Your task to perform on an android device: Open the stopwatch Image 0: 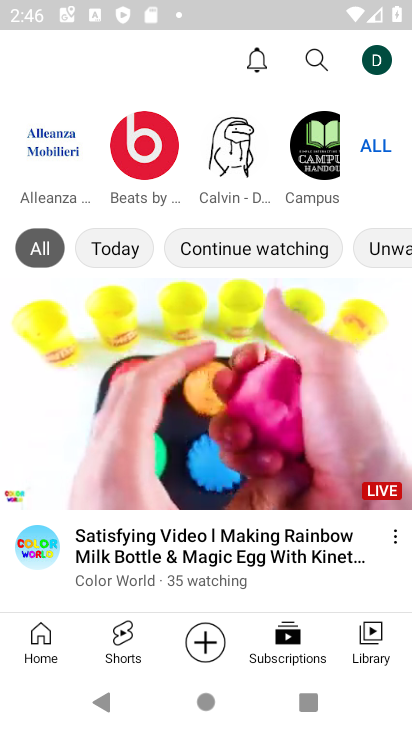
Step 0: press home button
Your task to perform on an android device: Open the stopwatch Image 1: 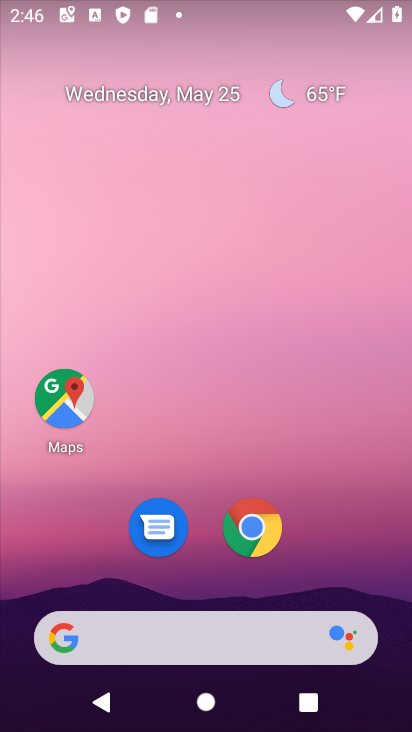
Step 1: drag from (290, 560) to (349, 30)
Your task to perform on an android device: Open the stopwatch Image 2: 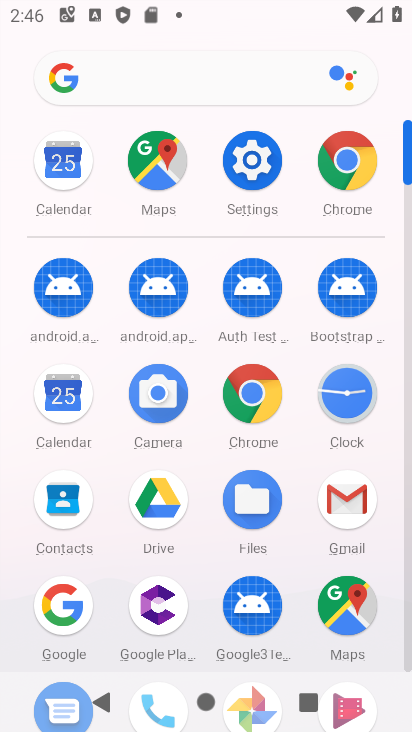
Step 2: click (387, 431)
Your task to perform on an android device: Open the stopwatch Image 3: 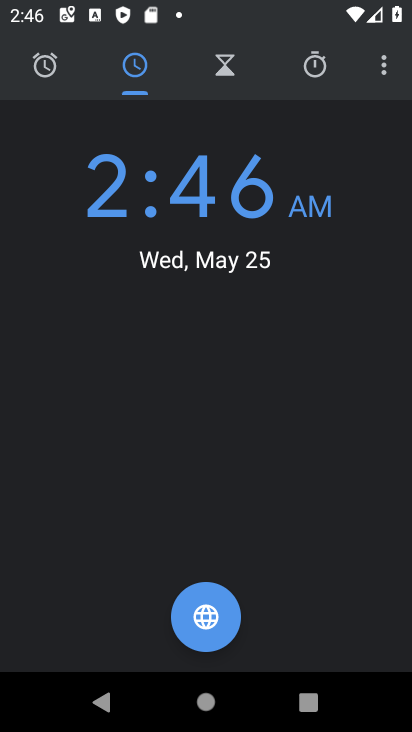
Step 3: click (306, 76)
Your task to perform on an android device: Open the stopwatch Image 4: 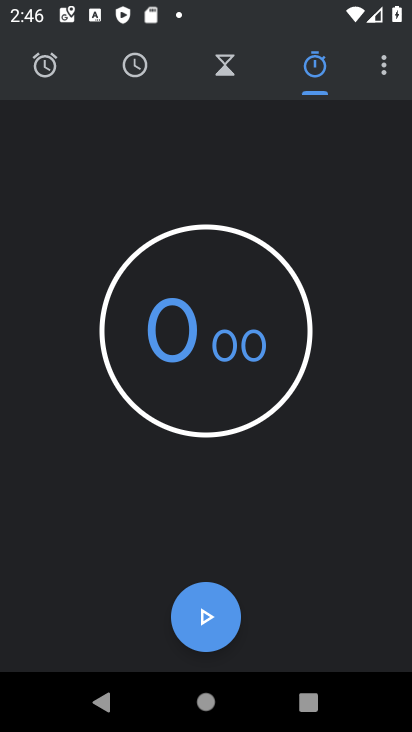
Step 4: task complete